Your task to perform on an android device: search for starred emails in the gmail app Image 0: 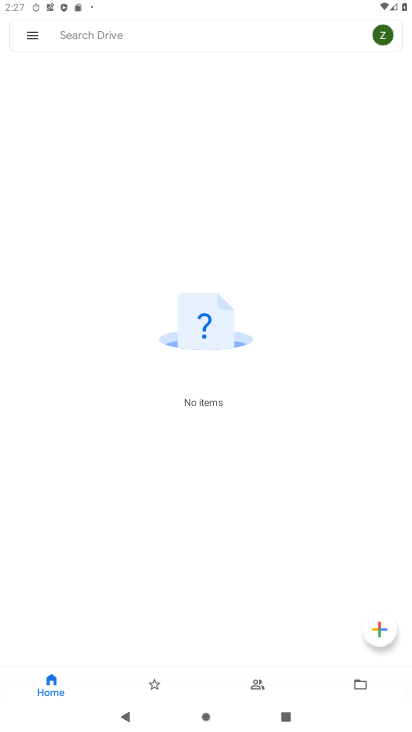
Step 0: press home button
Your task to perform on an android device: search for starred emails in the gmail app Image 1: 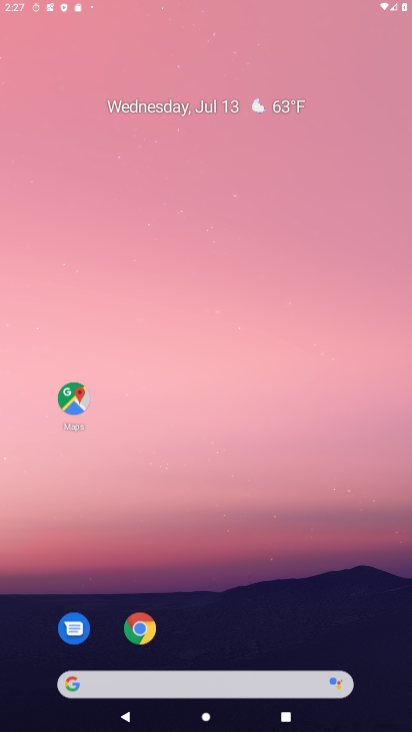
Step 1: drag from (212, 536) to (196, 372)
Your task to perform on an android device: search for starred emails in the gmail app Image 2: 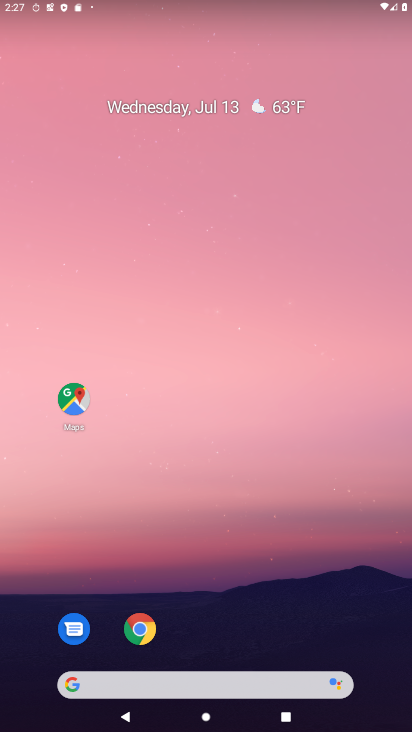
Step 2: drag from (197, 655) to (279, 127)
Your task to perform on an android device: search for starred emails in the gmail app Image 3: 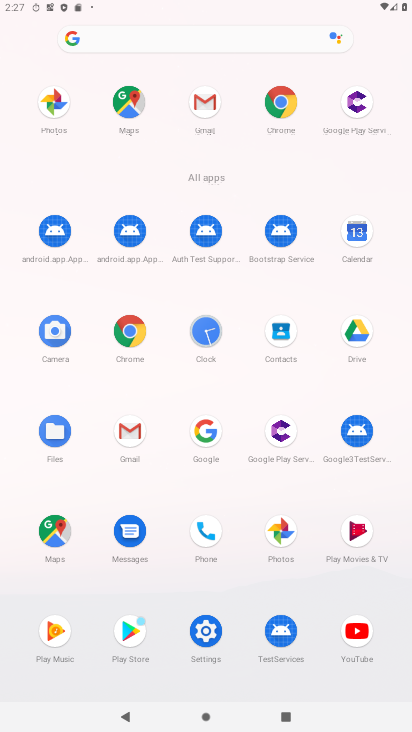
Step 3: click (127, 426)
Your task to perform on an android device: search for starred emails in the gmail app Image 4: 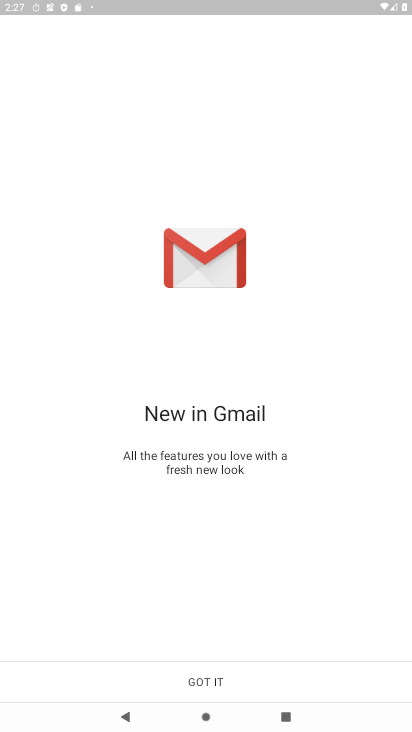
Step 4: click (191, 682)
Your task to perform on an android device: search for starred emails in the gmail app Image 5: 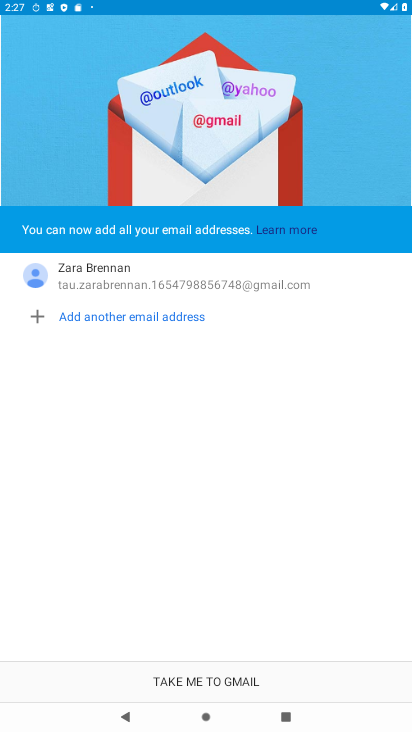
Step 5: click (174, 676)
Your task to perform on an android device: search for starred emails in the gmail app Image 6: 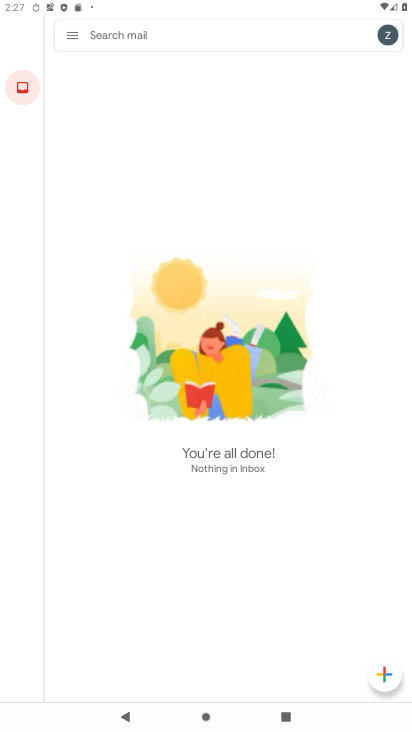
Step 6: drag from (273, 650) to (273, 401)
Your task to perform on an android device: search for starred emails in the gmail app Image 7: 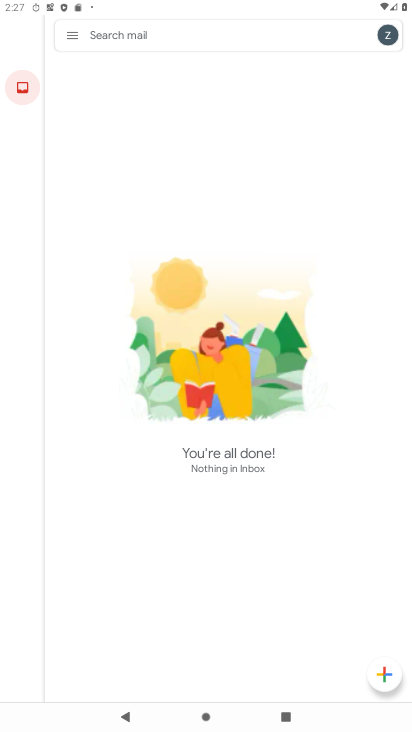
Step 7: drag from (189, 564) to (219, 266)
Your task to perform on an android device: search for starred emails in the gmail app Image 8: 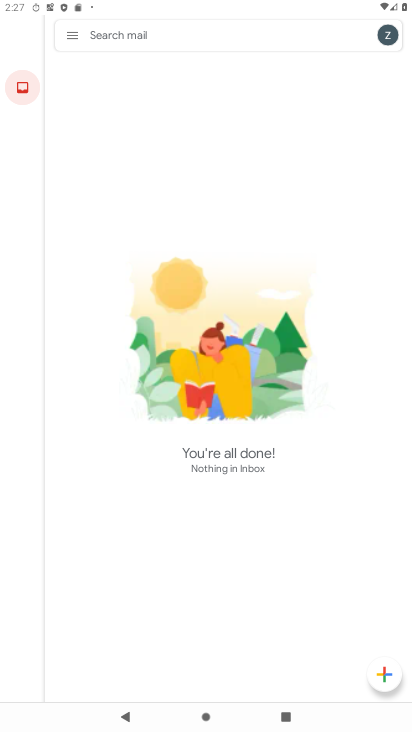
Step 8: drag from (174, 589) to (186, 295)
Your task to perform on an android device: search for starred emails in the gmail app Image 9: 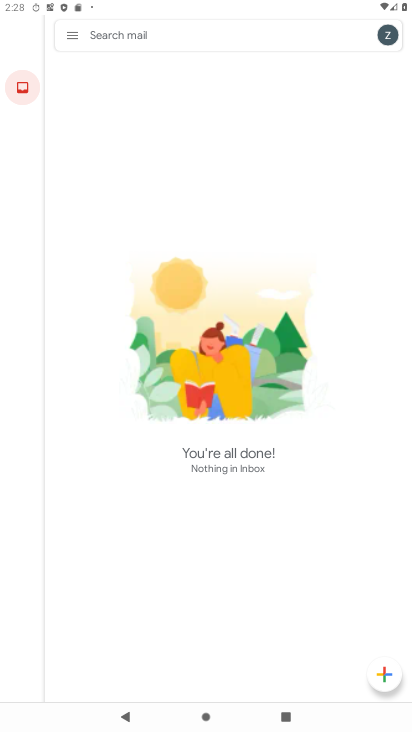
Step 9: drag from (227, 454) to (227, 255)
Your task to perform on an android device: search for starred emails in the gmail app Image 10: 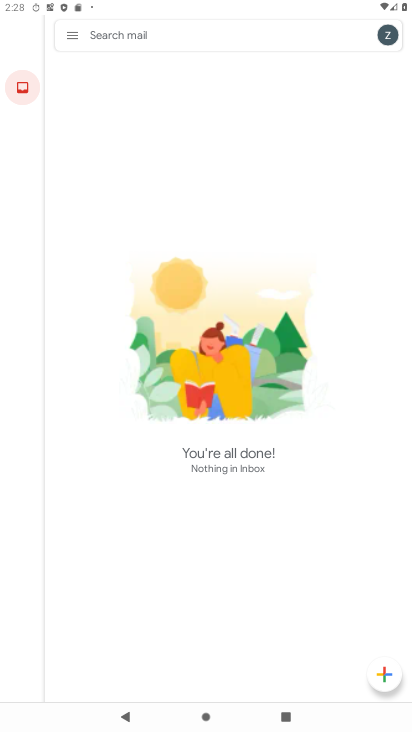
Step 10: click (72, 35)
Your task to perform on an android device: search for starred emails in the gmail app Image 11: 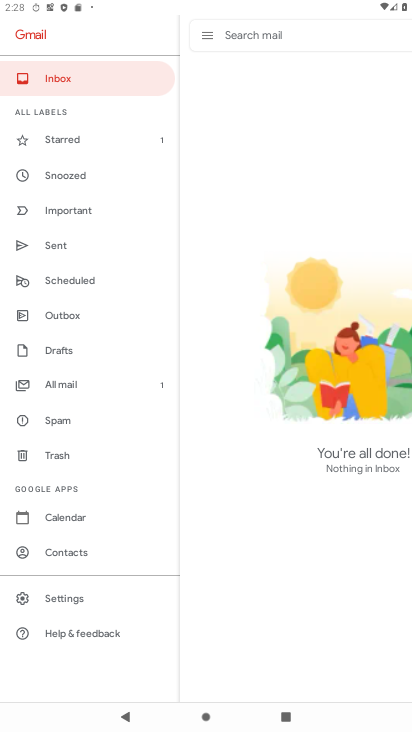
Step 11: click (88, 147)
Your task to perform on an android device: search for starred emails in the gmail app Image 12: 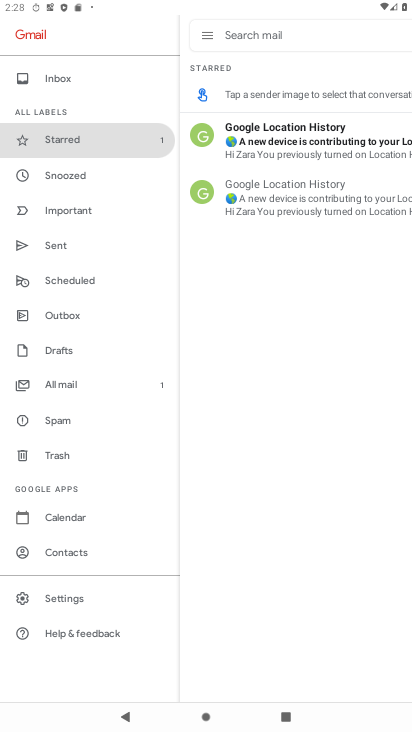
Step 12: click (260, 309)
Your task to perform on an android device: search for starred emails in the gmail app Image 13: 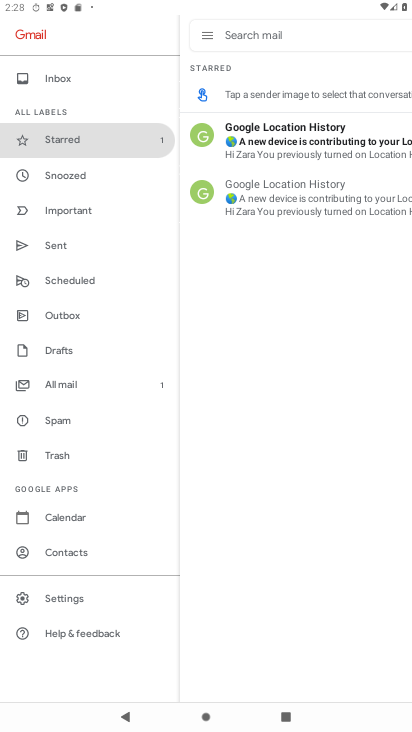
Step 13: task complete